Your task to perform on an android device: open chrome privacy settings Image 0: 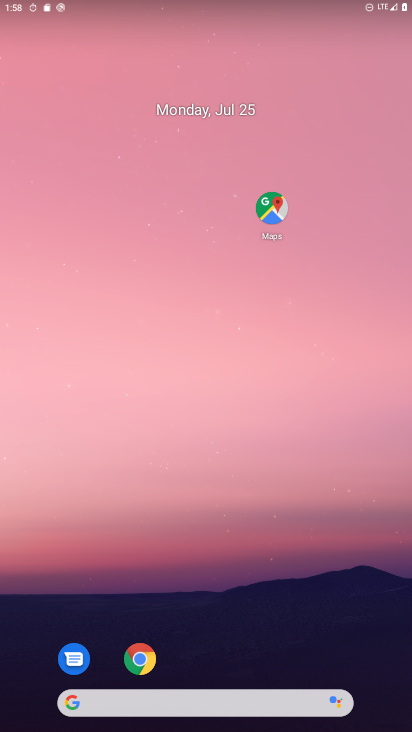
Step 0: drag from (178, 390) to (279, 152)
Your task to perform on an android device: open chrome privacy settings Image 1: 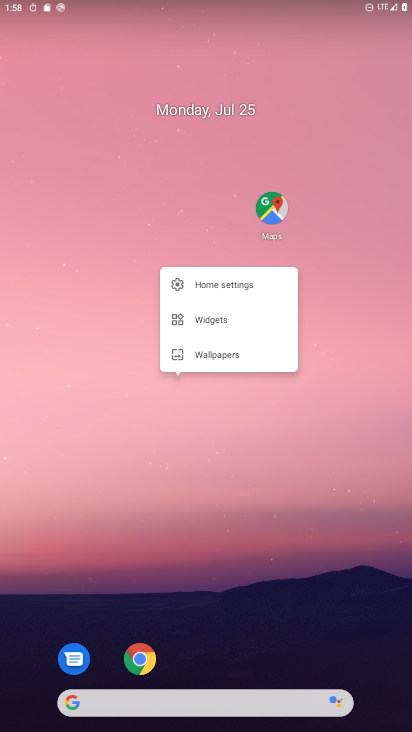
Step 1: click (144, 663)
Your task to perform on an android device: open chrome privacy settings Image 2: 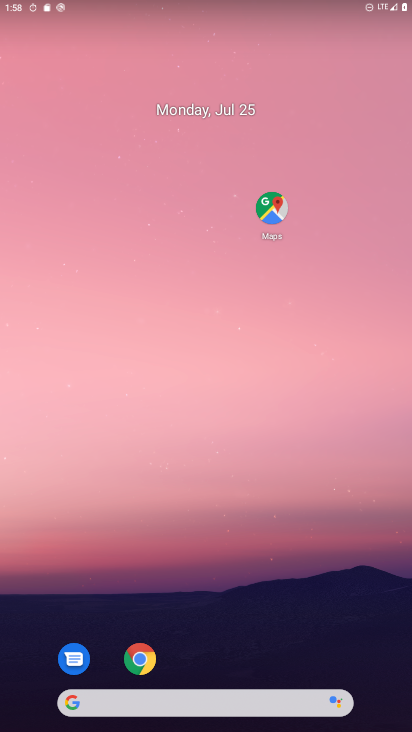
Step 2: click (142, 666)
Your task to perform on an android device: open chrome privacy settings Image 3: 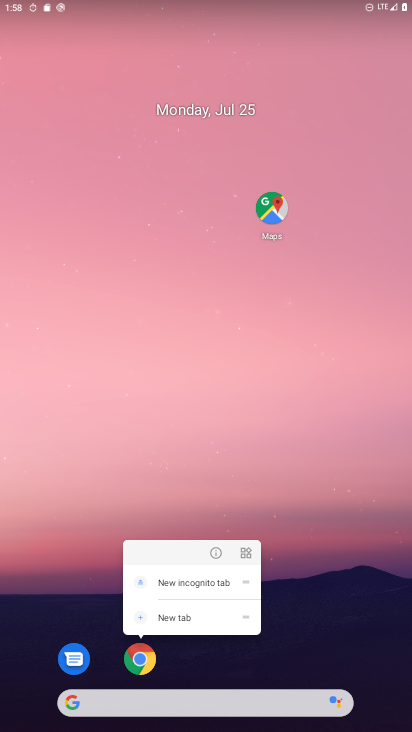
Step 3: click (136, 656)
Your task to perform on an android device: open chrome privacy settings Image 4: 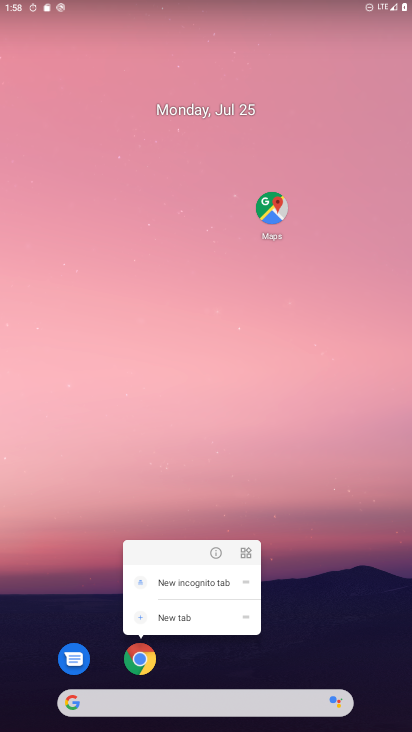
Step 4: click (136, 654)
Your task to perform on an android device: open chrome privacy settings Image 5: 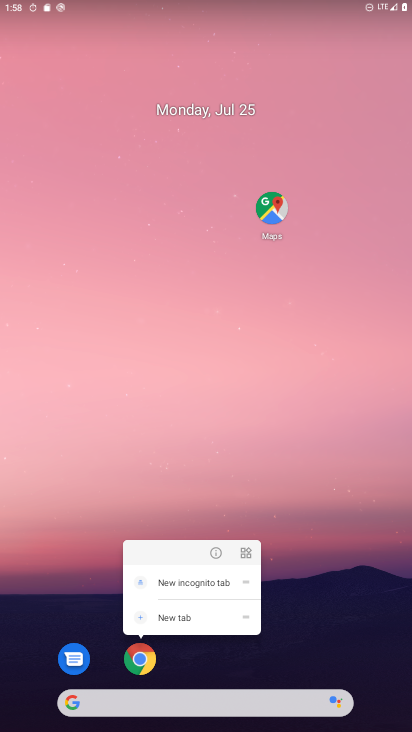
Step 5: task complete